Your task to perform on an android device: choose inbox layout in the gmail app Image 0: 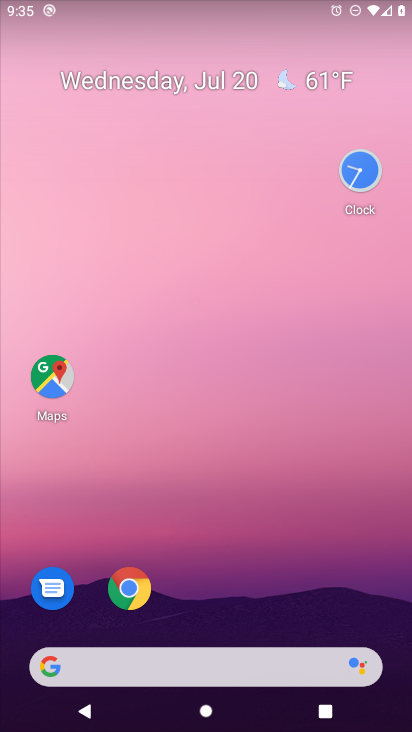
Step 0: drag from (40, 634) to (183, 191)
Your task to perform on an android device: choose inbox layout in the gmail app Image 1: 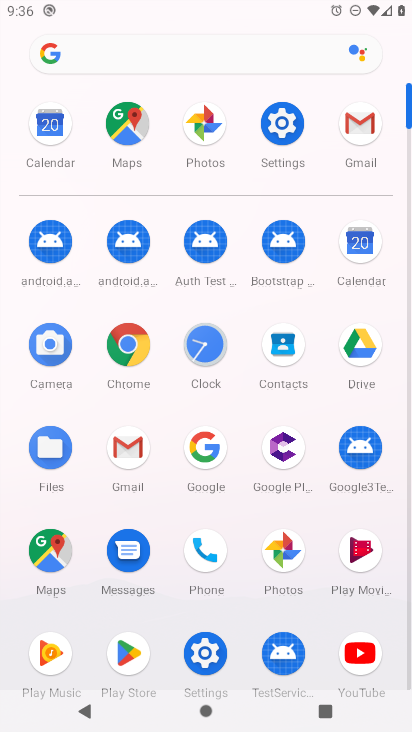
Step 1: click (135, 464)
Your task to perform on an android device: choose inbox layout in the gmail app Image 2: 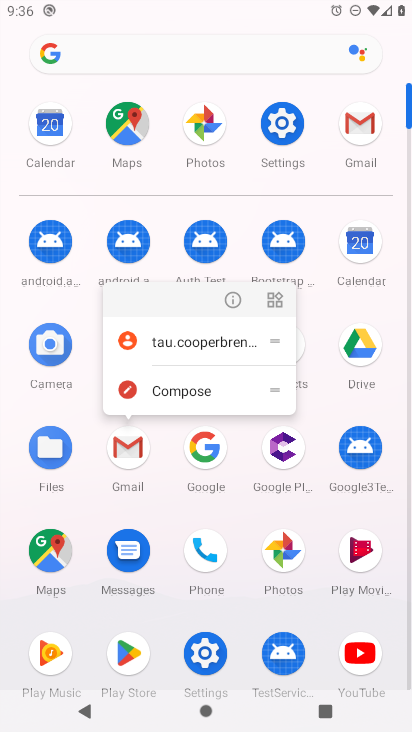
Step 2: click (122, 453)
Your task to perform on an android device: choose inbox layout in the gmail app Image 3: 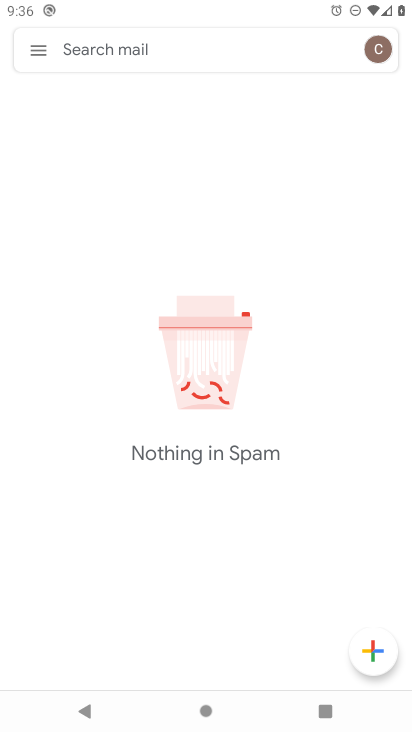
Step 3: click (42, 45)
Your task to perform on an android device: choose inbox layout in the gmail app Image 4: 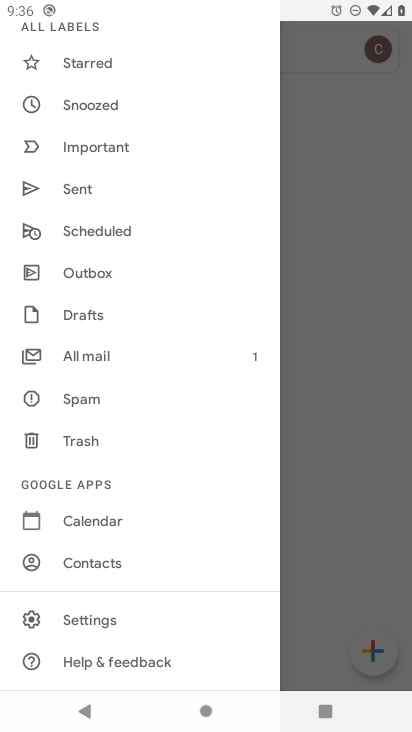
Step 4: click (83, 622)
Your task to perform on an android device: choose inbox layout in the gmail app Image 5: 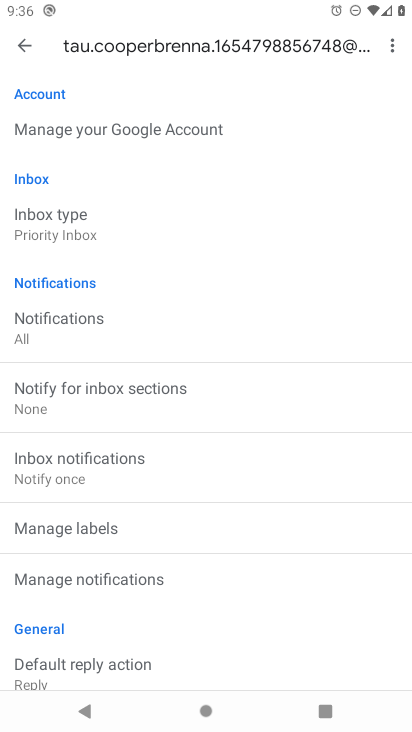
Step 5: task complete